Your task to perform on an android device: Search for pizza restaurants on Maps Image 0: 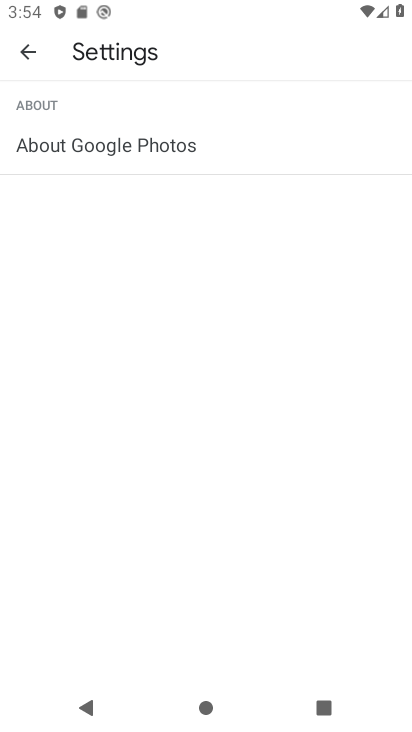
Step 0: press home button
Your task to perform on an android device: Search for pizza restaurants on Maps Image 1: 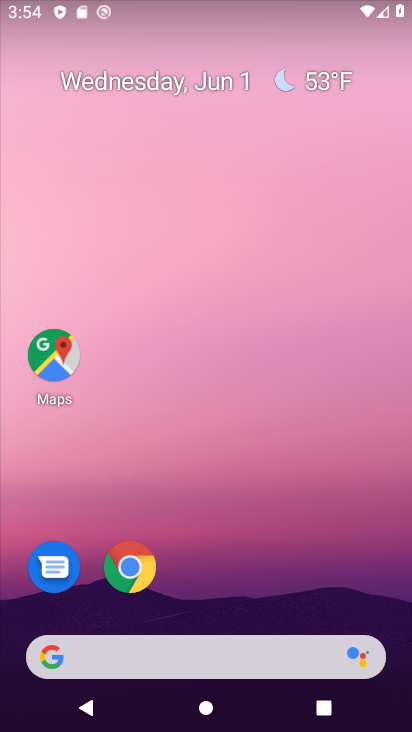
Step 1: click (42, 344)
Your task to perform on an android device: Search for pizza restaurants on Maps Image 2: 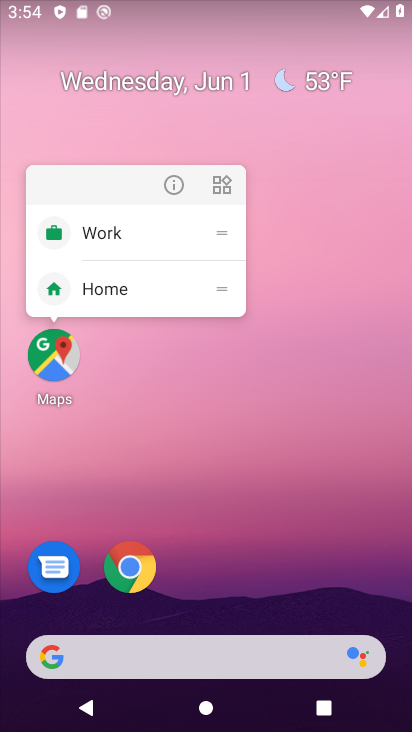
Step 2: click (51, 357)
Your task to perform on an android device: Search for pizza restaurants on Maps Image 3: 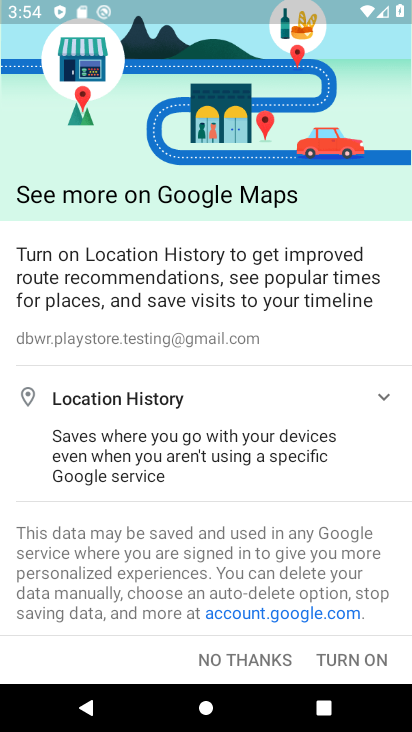
Step 3: click (276, 664)
Your task to perform on an android device: Search for pizza restaurants on Maps Image 4: 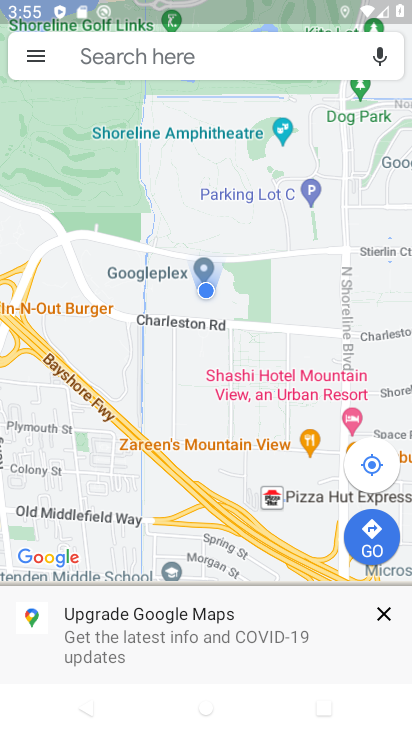
Step 4: click (209, 58)
Your task to perform on an android device: Search for pizza restaurants on Maps Image 5: 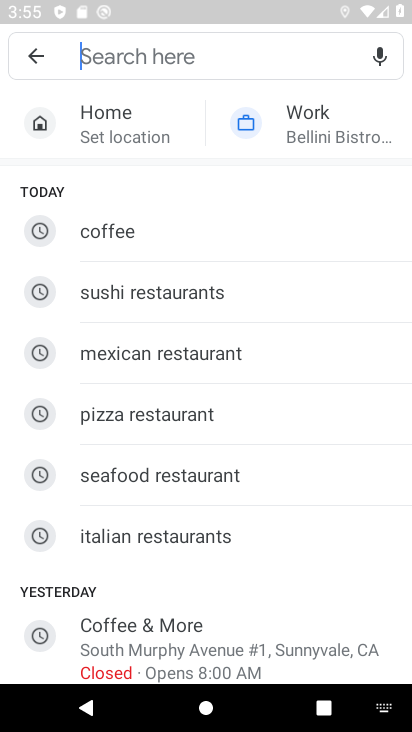
Step 5: type "Pizza restaurants"
Your task to perform on an android device: Search for pizza restaurants on Maps Image 6: 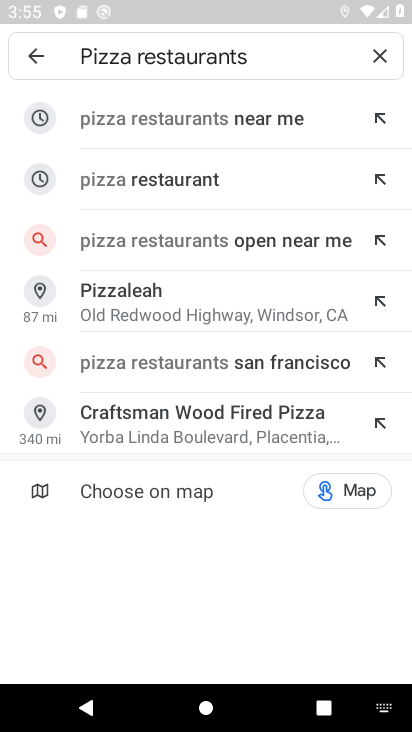
Step 6: click (183, 186)
Your task to perform on an android device: Search for pizza restaurants on Maps Image 7: 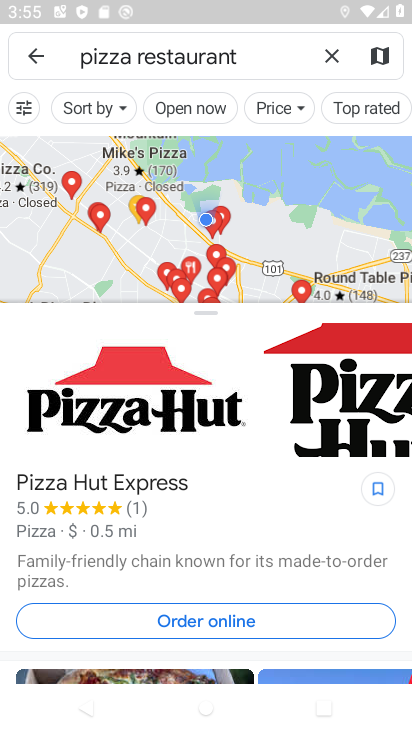
Step 7: task complete